Your task to perform on an android device: Toggle the flashlight Image 0: 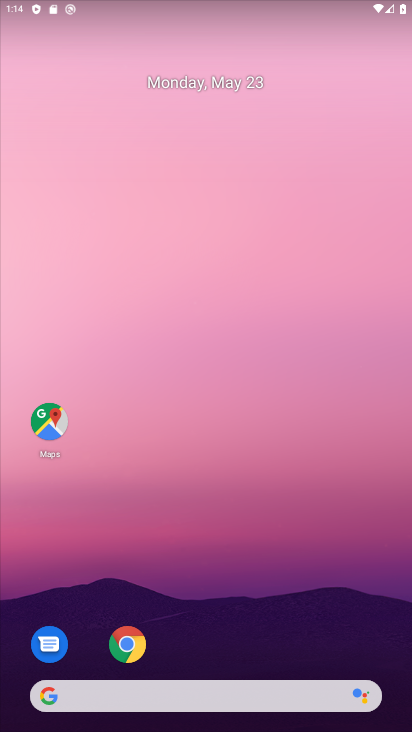
Step 0: drag from (228, 588) to (232, 17)
Your task to perform on an android device: Toggle the flashlight Image 1: 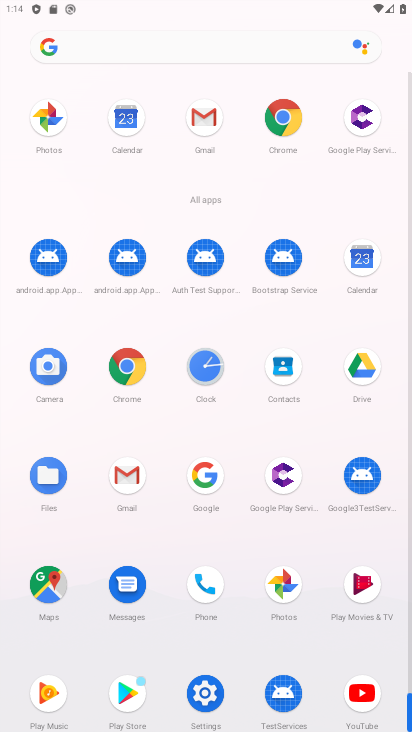
Step 1: drag from (4, 582) to (10, 215)
Your task to perform on an android device: Toggle the flashlight Image 2: 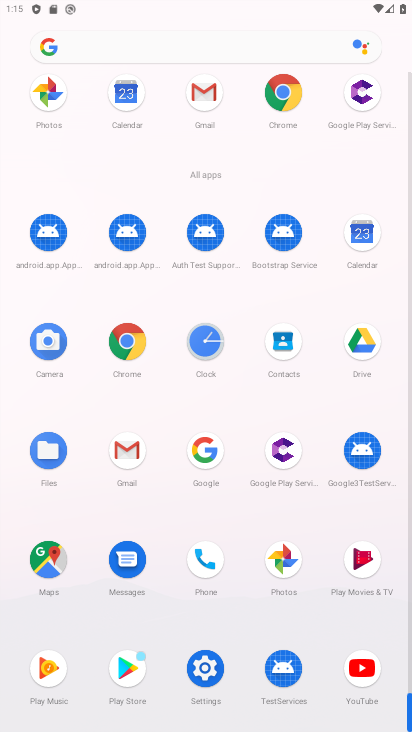
Step 2: click (203, 662)
Your task to perform on an android device: Toggle the flashlight Image 3: 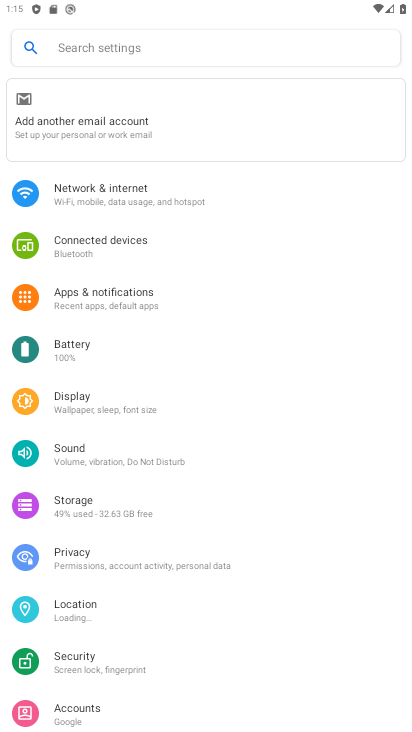
Step 3: click (174, 192)
Your task to perform on an android device: Toggle the flashlight Image 4: 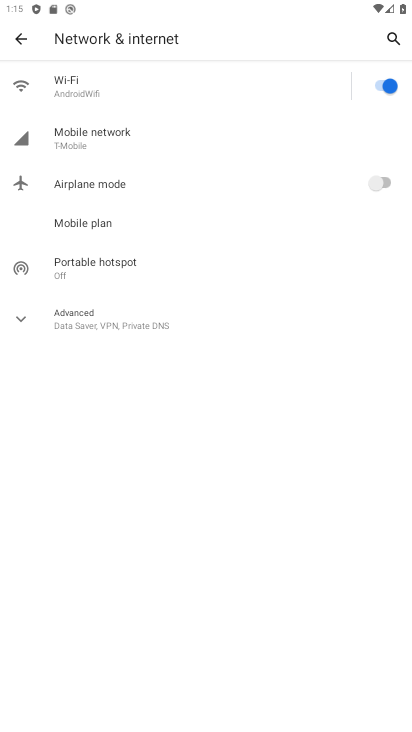
Step 4: click (40, 323)
Your task to perform on an android device: Toggle the flashlight Image 5: 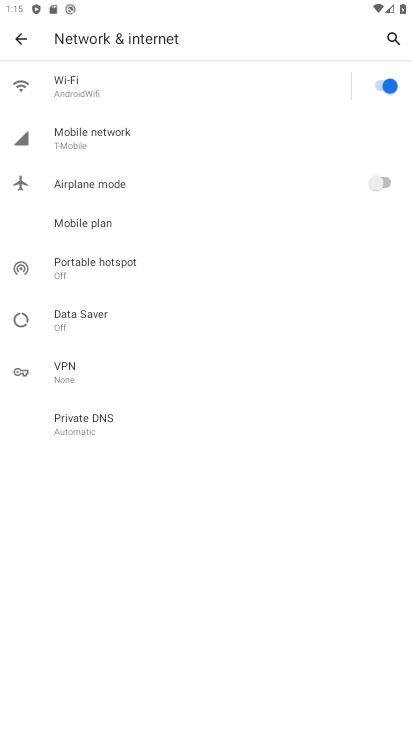
Step 5: task complete